Your task to perform on an android device: Turn on the flashlight Image 0: 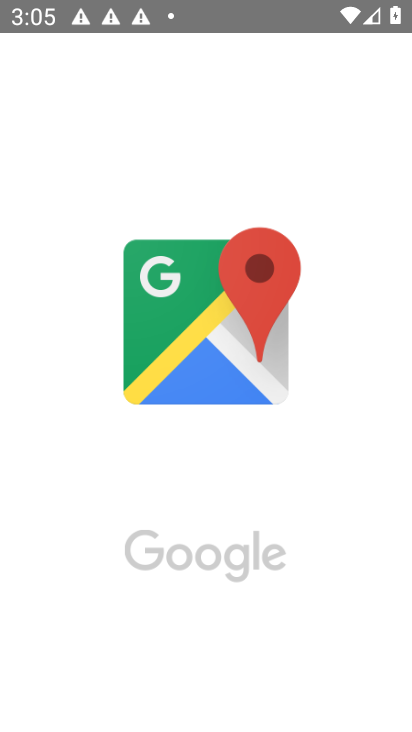
Step 0: drag from (204, 551) to (145, 175)
Your task to perform on an android device: Turn on the flashlight Image 1: 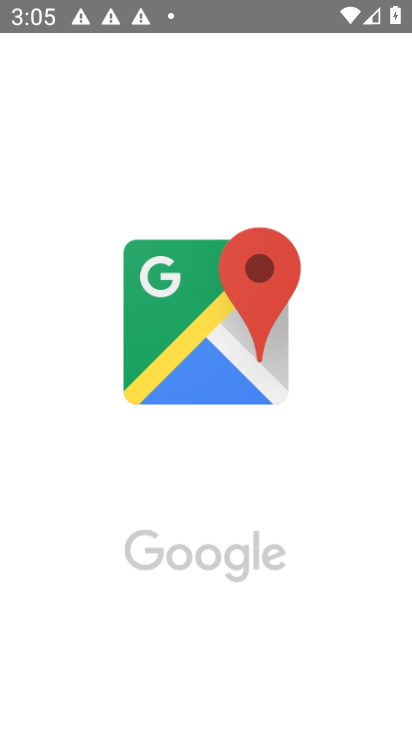
Step 1: task complete